Your task to perform on an android device: turn off sleep mode Image 0: 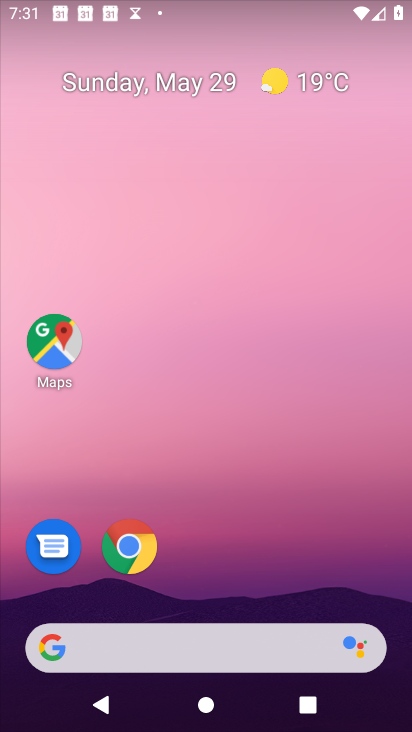
Step 0: drag from (210, 575) to (181, 192)
Your task to perform on an android device: turn off sleep mode Image 1: 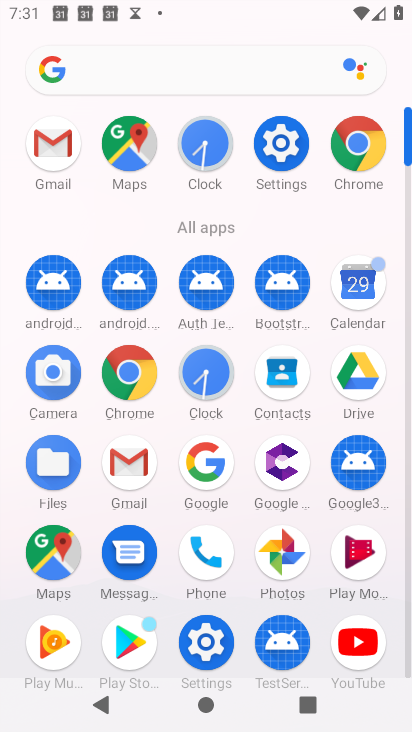
Step 1: click (267, 154)
Your task to perform on an android device: turn off sleep mode Image 2: 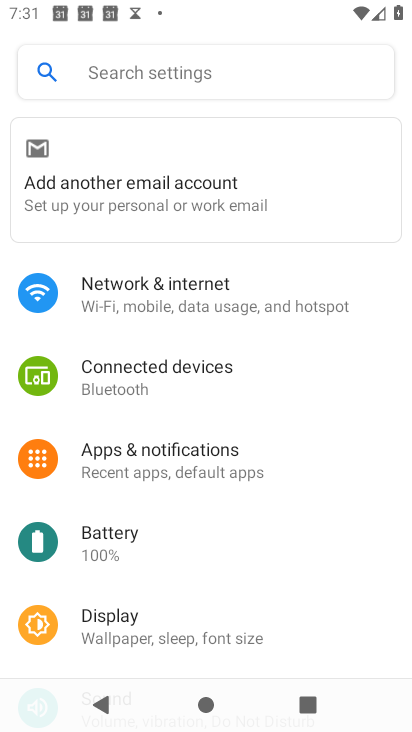
Step 2: task complete